Your task to perform on an android device: Open Yahoo.com Image 0: 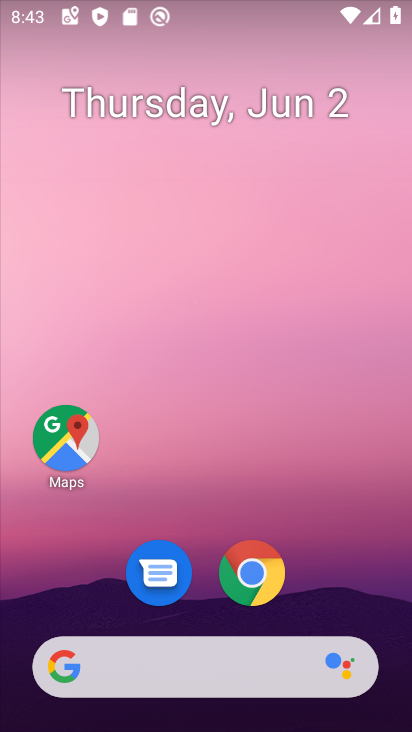
Step 0: click (236, 577)
Your task to perform on an android device: Open Yahoo.com Image 1: 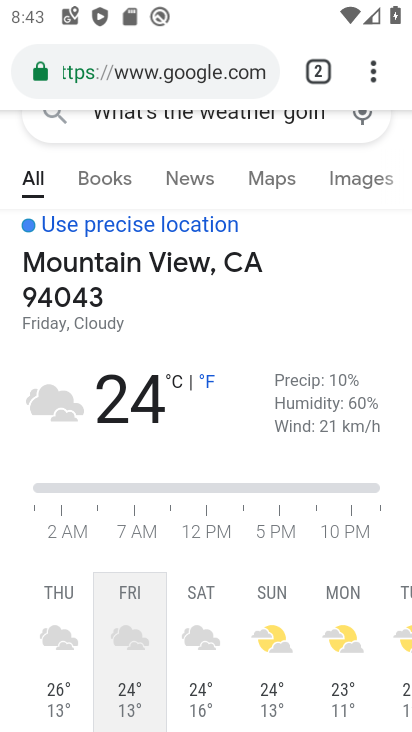
Step 1: click (217, 65)
Your task to perform on an android device: Open Yahoo.com Image 2: 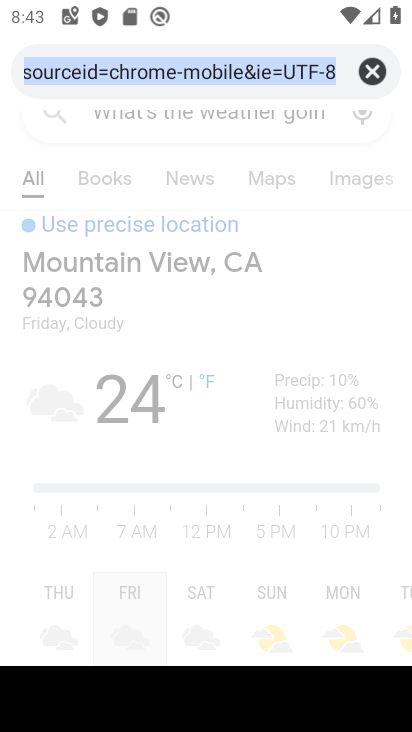
Step 2: click (371, 75)
Your task to perform on an android device: Open Yahoo.com Image 3: 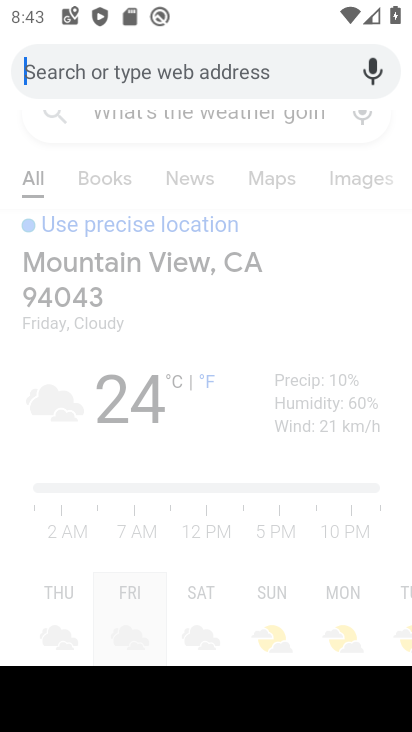
Step 3: type " Yahoo.com"
Your task to perform on an android device: Open Yahoo.com Image 4: 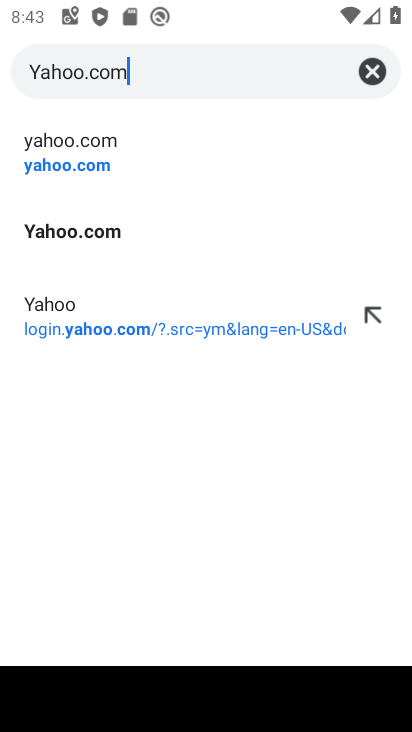
Step 4: type ""
Your task to perform on an android device: Open Yahoo.com Image 5: 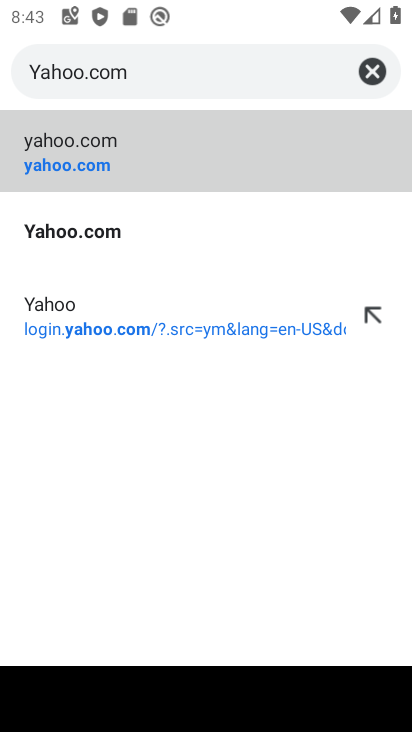
Step 5: click (219, 130)
Your task to perform on an android device: Open Yahoo.com Image 6: 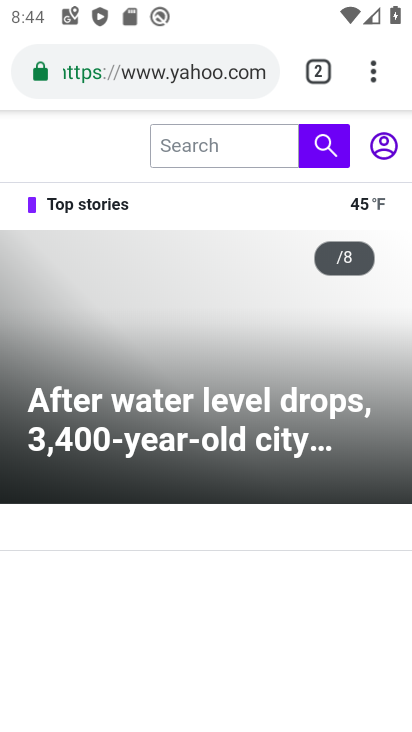
Step 6: task complete